Your task to perform on an android device: turn on data saver in the chrome app Image 0: 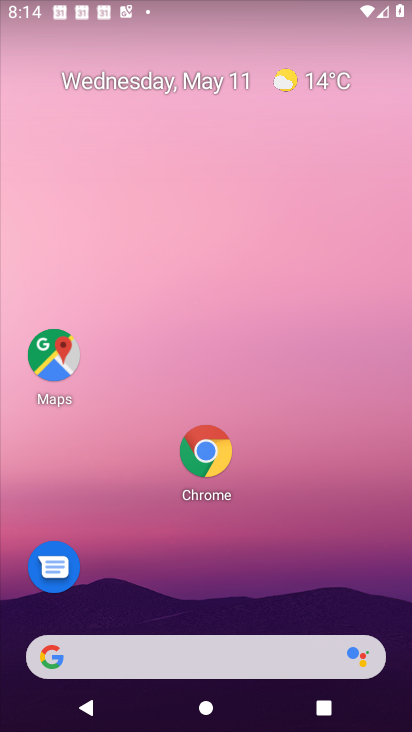
Step 0: click (195, 459)
Your task to perform on an android device: turn on data saver in the chrome app Image 1: 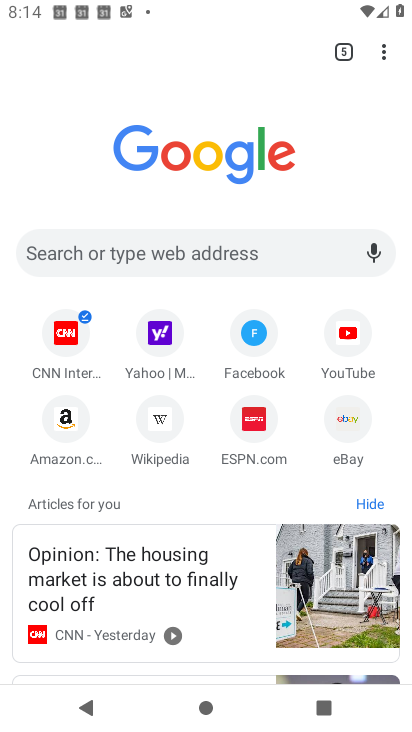
Step 1: drag from (385, 48) to (232, 448)
Your task to perform on an android device: turn on data saver in the chrome app Image 2: 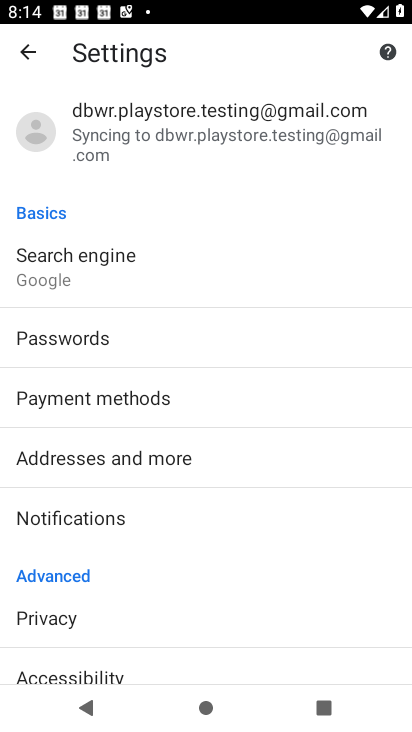
Step 2: drag from (151, 631) to (284, 229)
Your task to perform on an android device: turn on data saver in the chrome app Image 3: 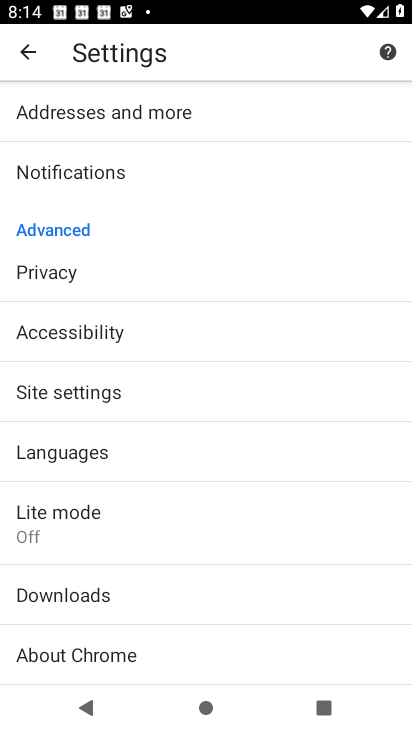
Step 3: click (107, 529)
Your task to perform on an android device: turn on data saver in the chrome app Image 4: 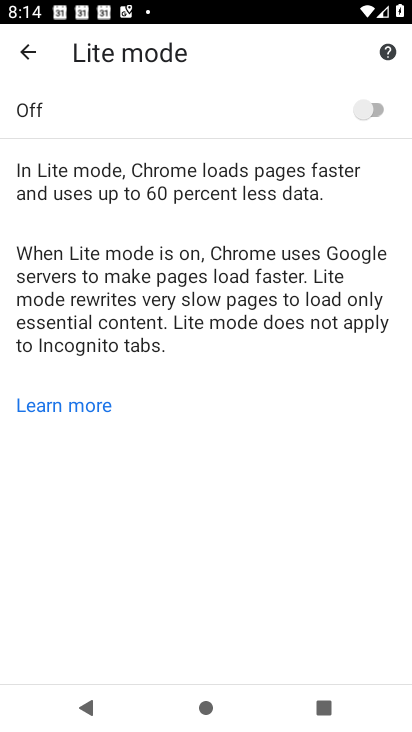
Step 4: click (377, 107)
Your task to perform on an android device: turn on data saver in the chrome app Image 5: 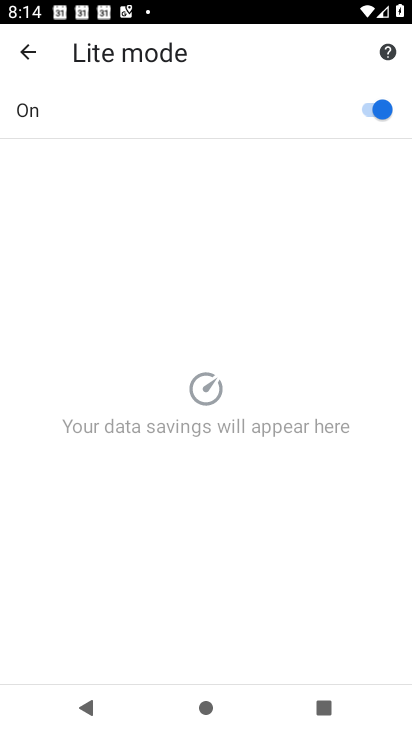
Step 5: task complete